Your task to perform on an android device: Open Google Chrome Image 0: 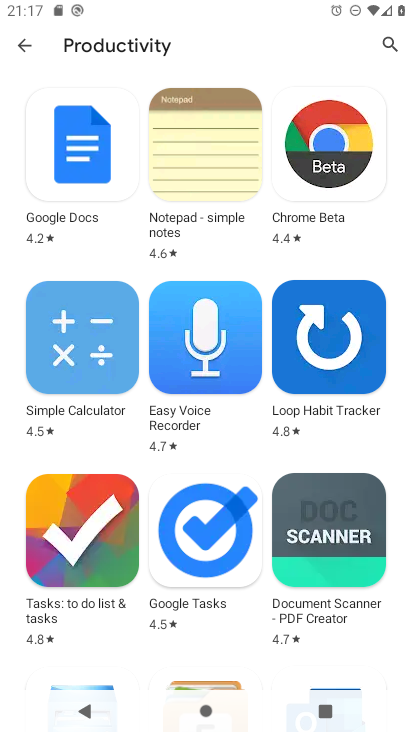
Step 0: press home button
Your task to perform on an android device: Open Google Chrome Image 1: 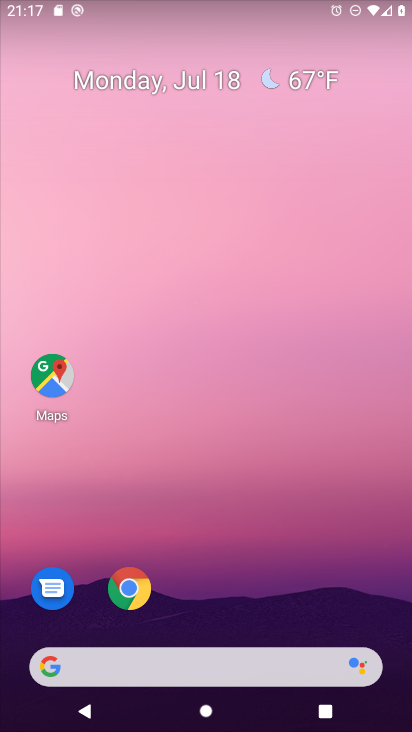
Step 1: click (126, 586)
Your task to perform on an android device: Open Google Chrome Image 2: 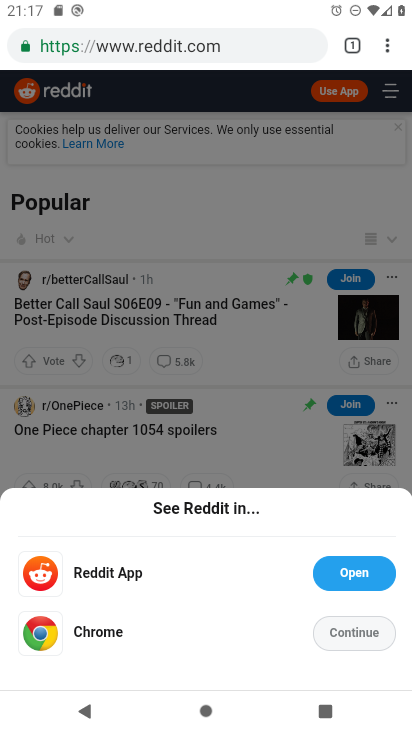
Step 2: task complete